Your task to perform on an android device: stop showing notifications on the lock screen Image 0: 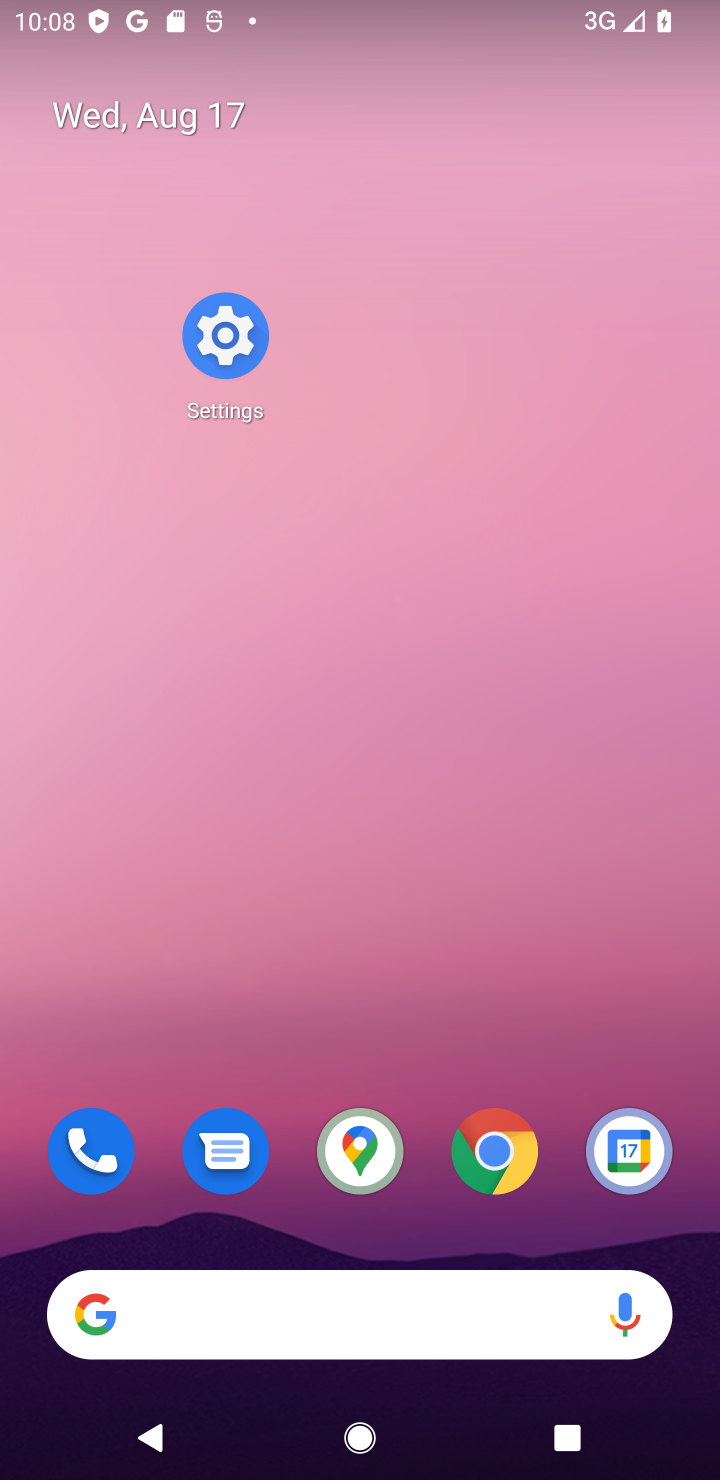
Step 0: drag from (299, 346) to (199, 36)
Your task to perform on an android device: stop showing notifications on the lock screen Image 1: 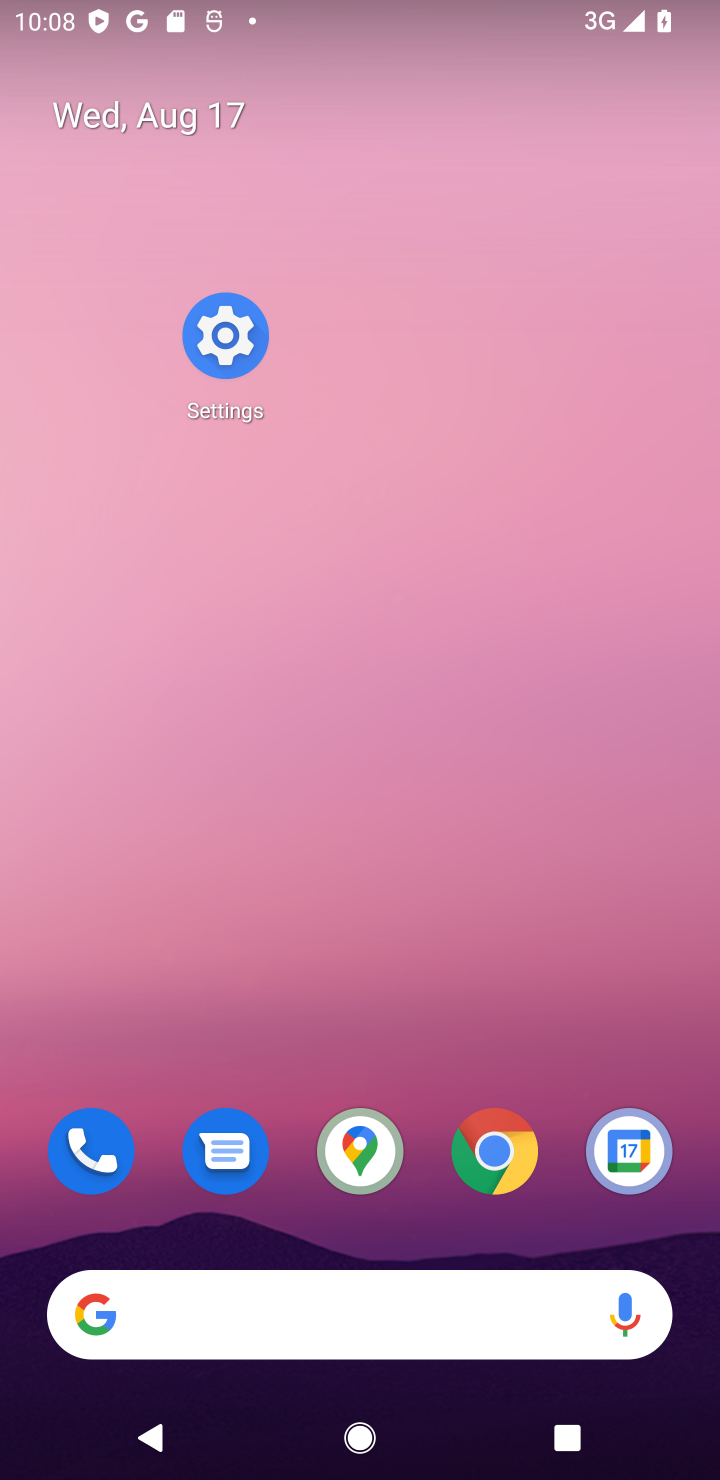
Step 1: drag from (423, 1000) to (428, 30)
Your task to perform on an android device: stop showing notifications on the lock screen Image 2: 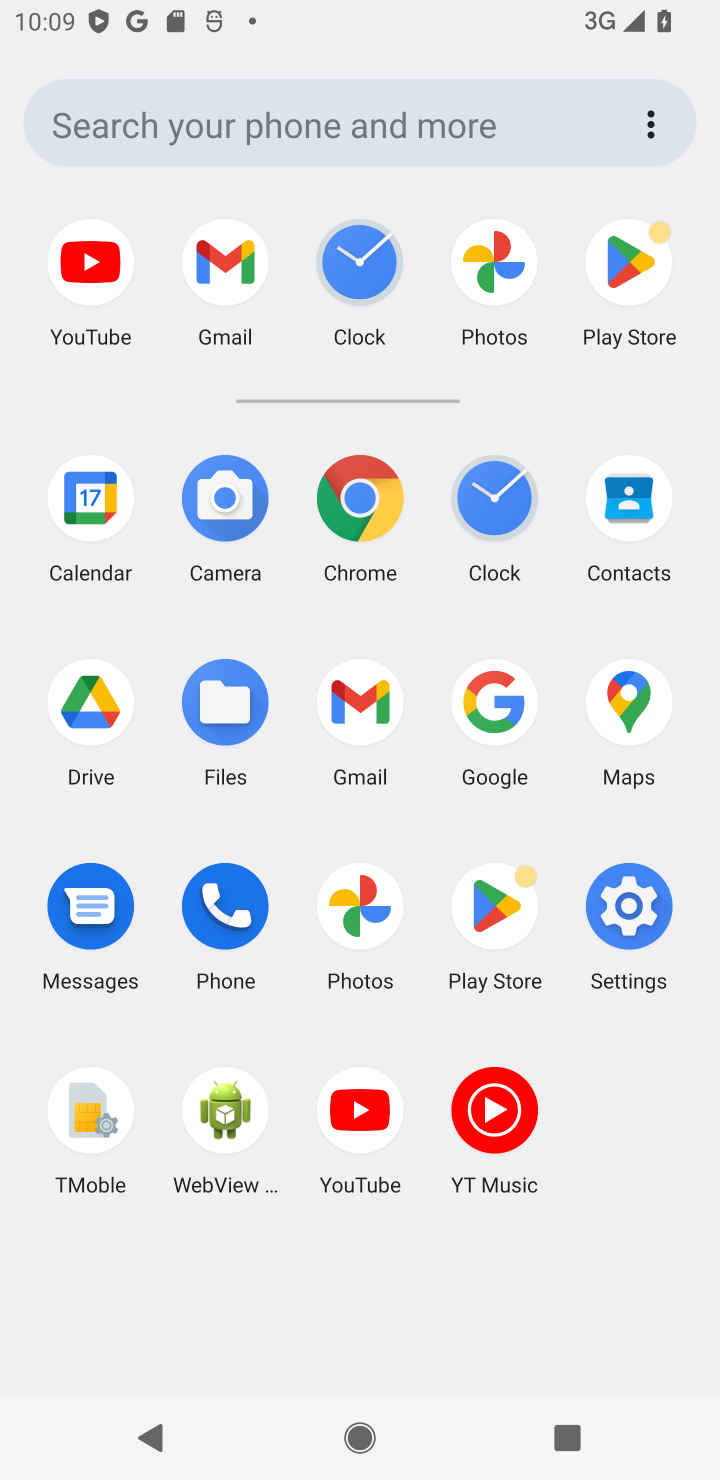
Step 2: click (639, 927)
Your task to perform on an android device: stop showing notifications on the lock screen Image 3: 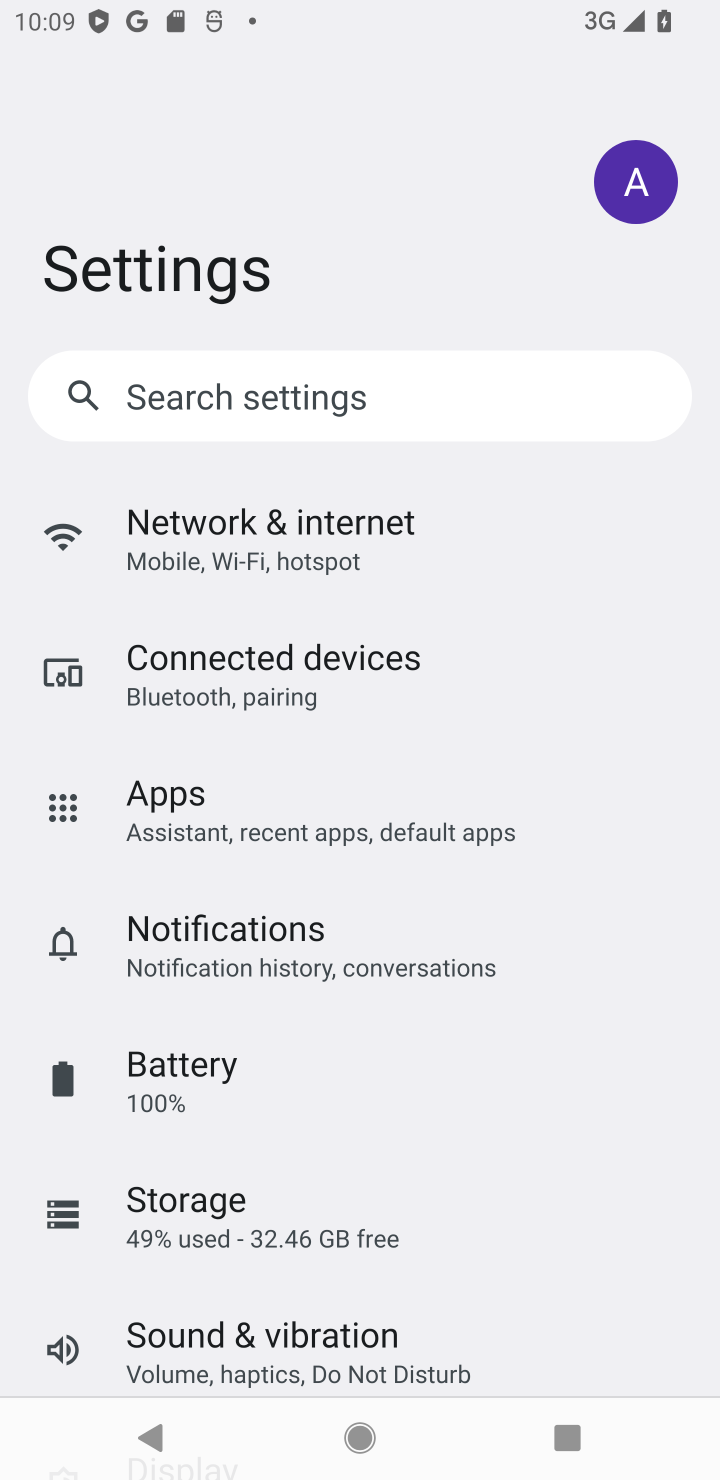
Step 3: drag from (292, 155) to (186, 0)
Your task to perform on an android device: stop showing notifications on the lock screen Image 4: 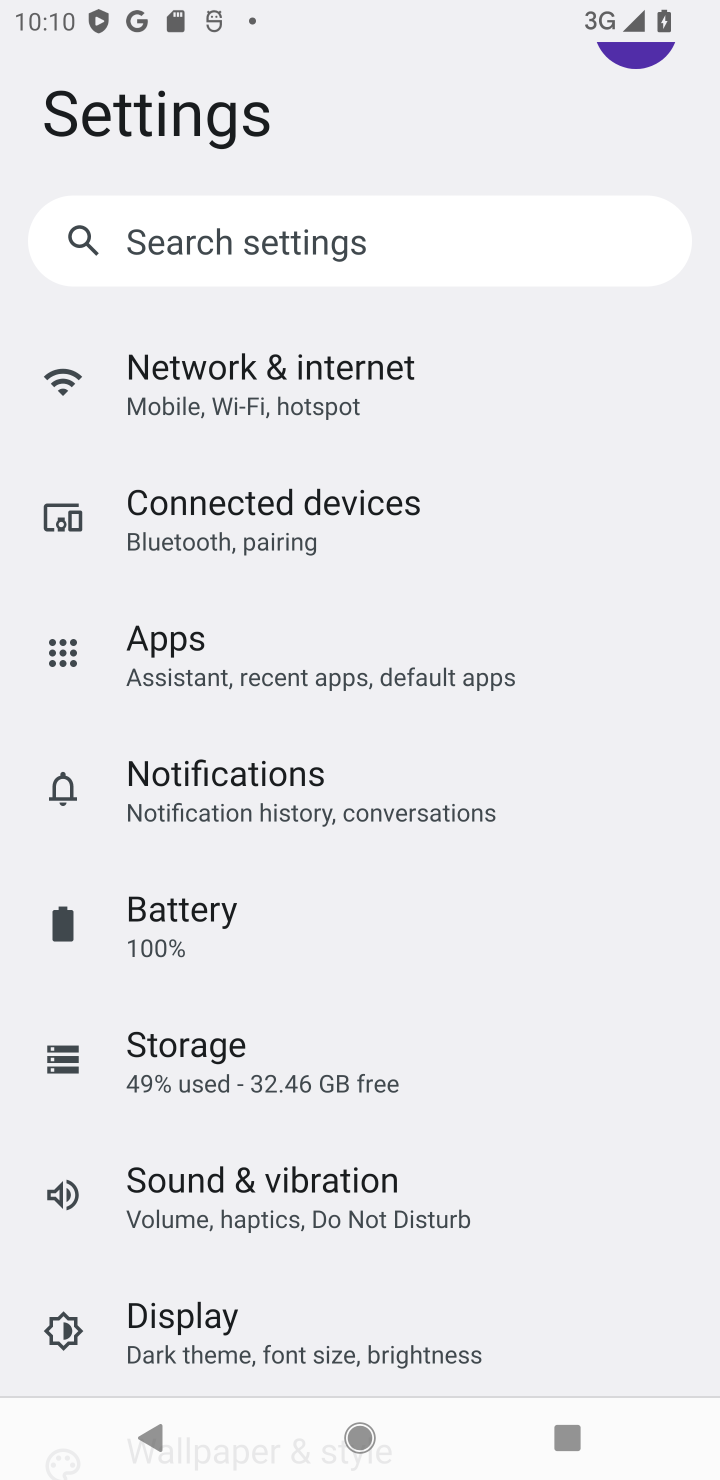
Step 4: click (222, 810)
Your task to perform on an android device: stop showing notifications on the lock screen Image 5: 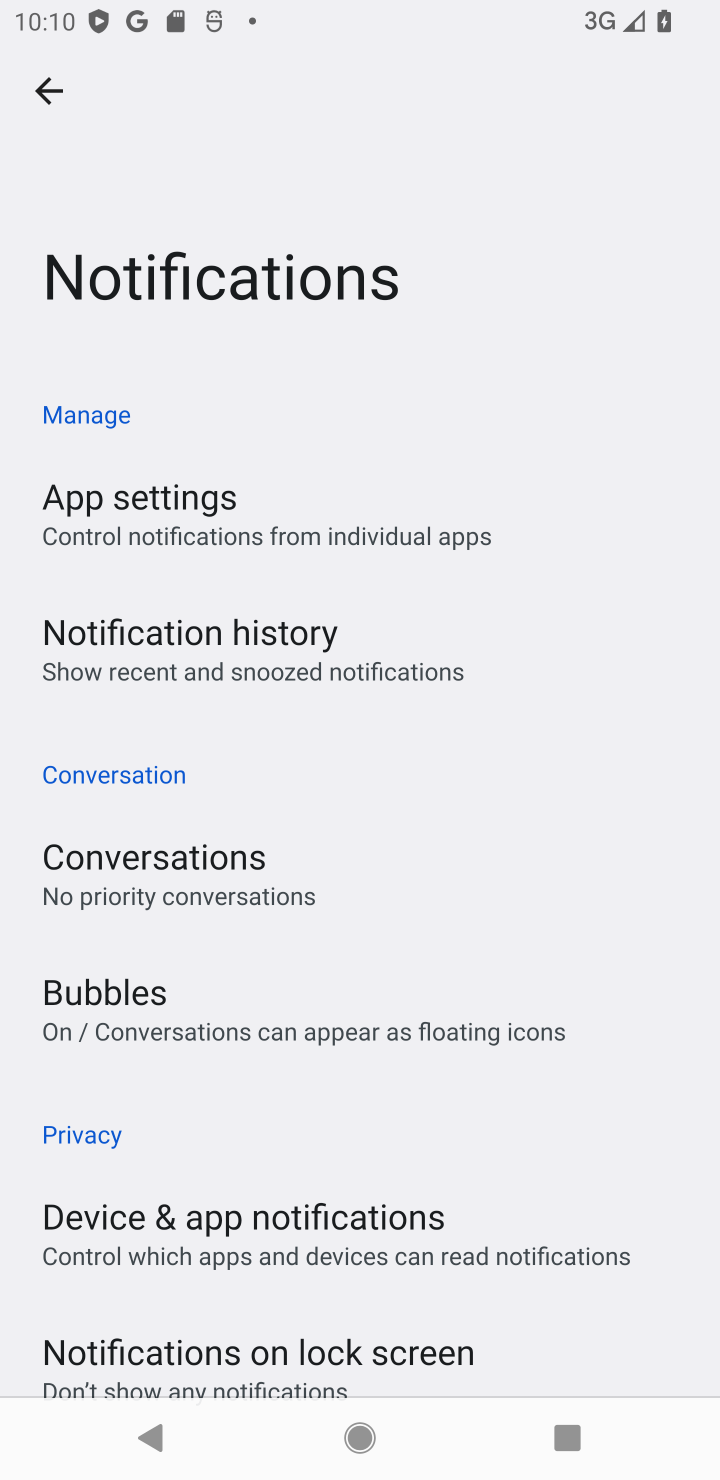
Step 5: drag from (310, 1187) to (377, 684)
Your task to perform on an android device: stop showing notifications on the lock screen Image 6: 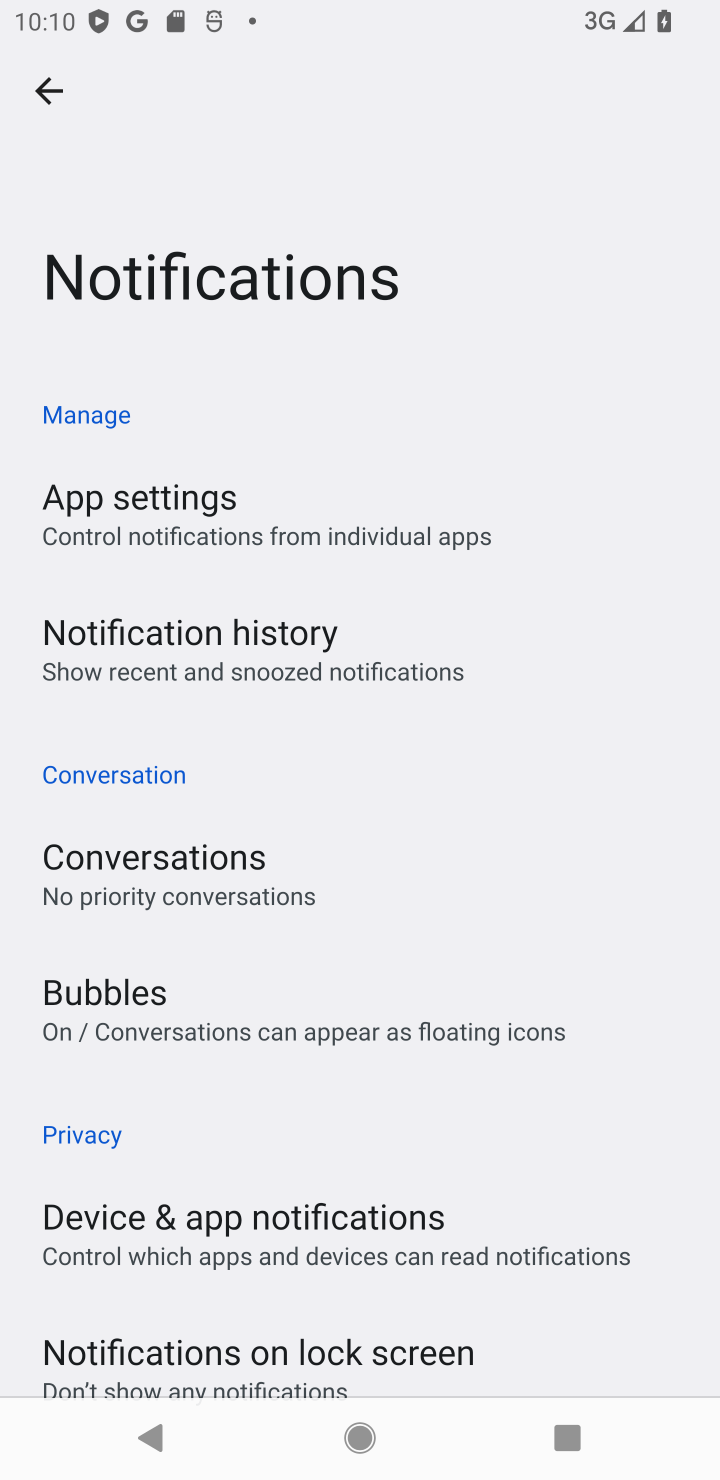
Step 6: drag from (276, 1034) to (349, 689)
Your task to perform on an android device: stop showing notifications on the lock screen Image 7: 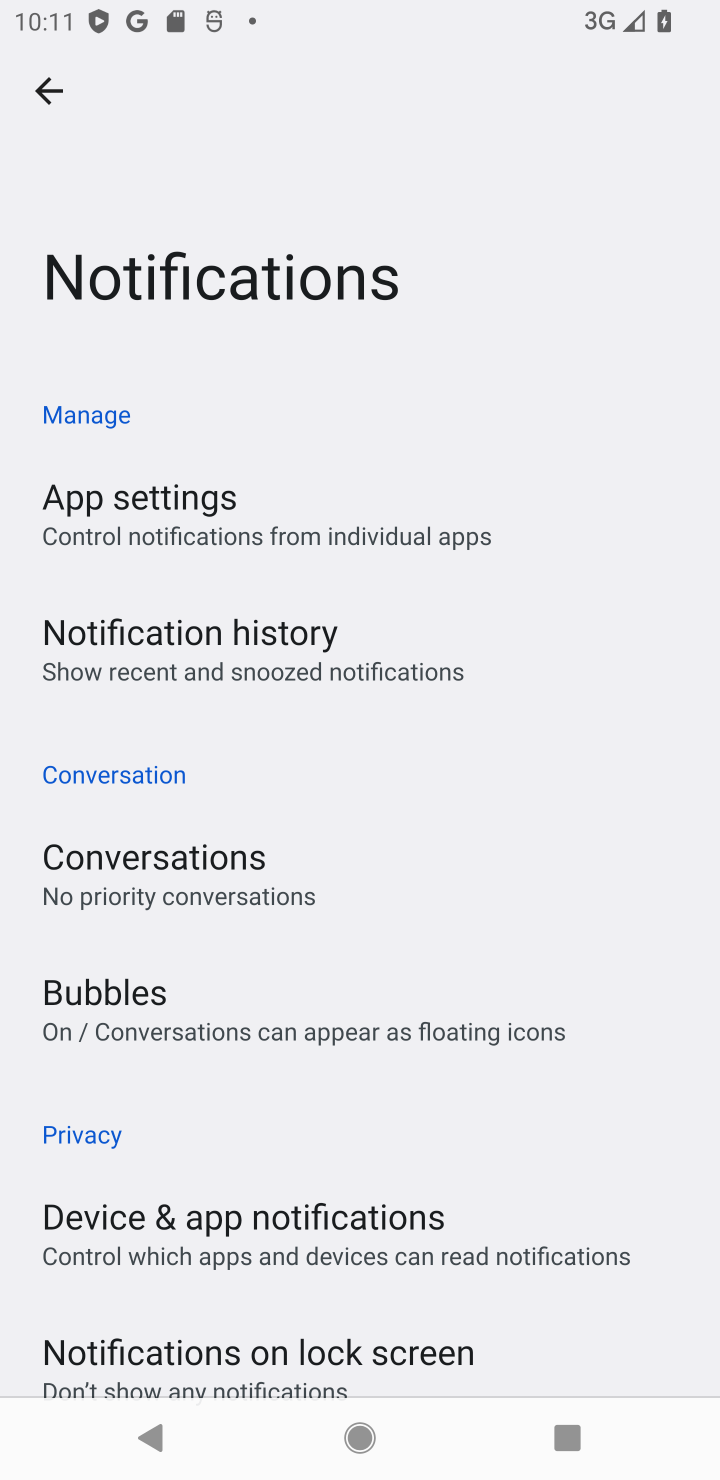
Step 7: click (236, 1330)
Your task to perform on an android device: stop showing notifications on the lock screen Image 8: 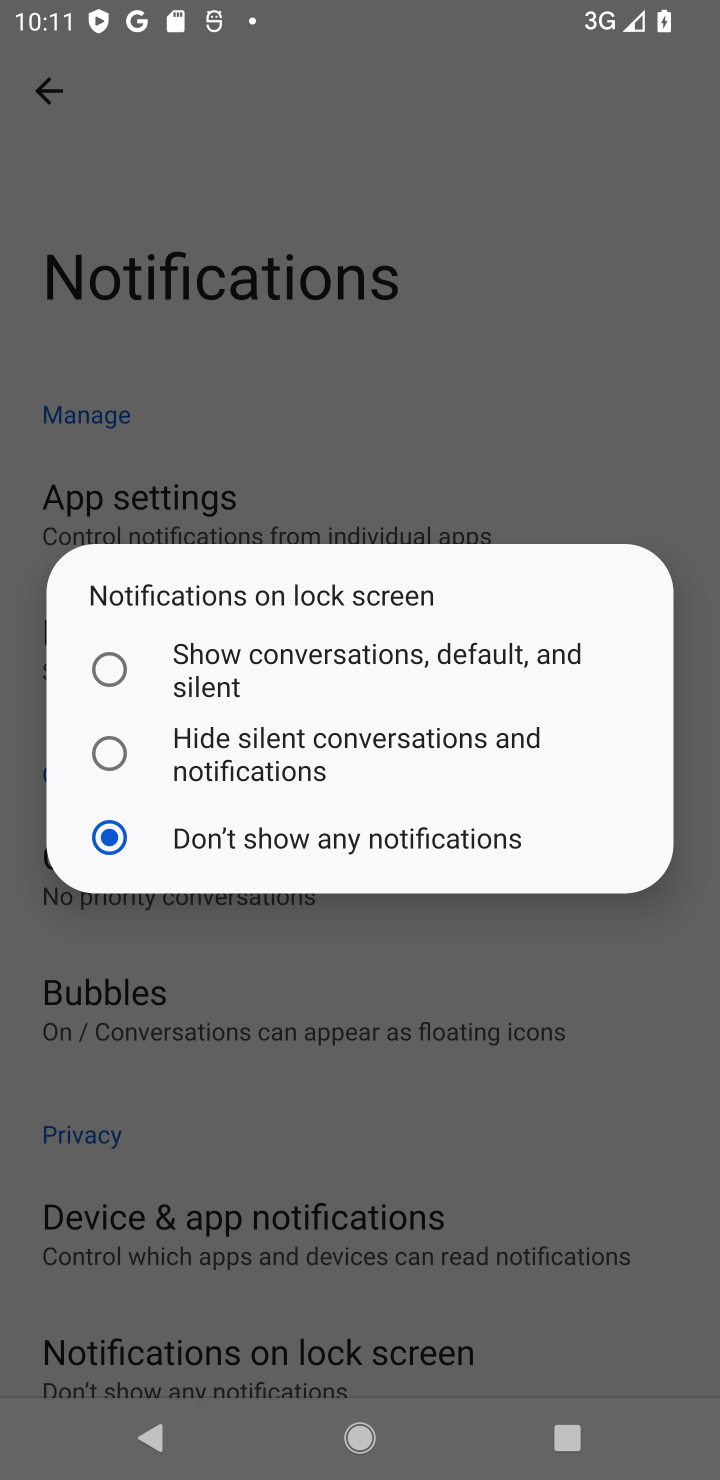
Step 8: task complete